Your task to perform on an android device: Open ESPN.com Image 0: 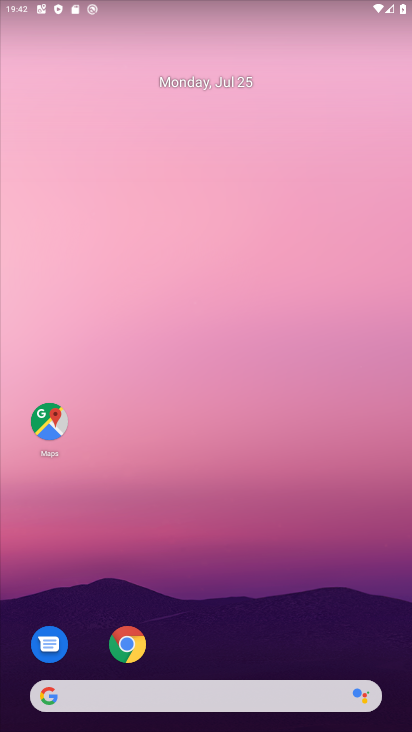
Step 0: press home button
Your task to perform on an android device: Open ESPN.com Image 1: 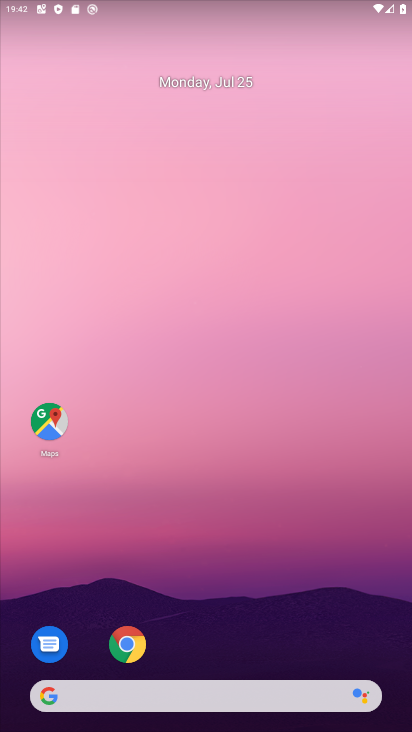
Step 1: click (130, 642)
Your task to perform on an android device: Open ESPN.com Image 2: 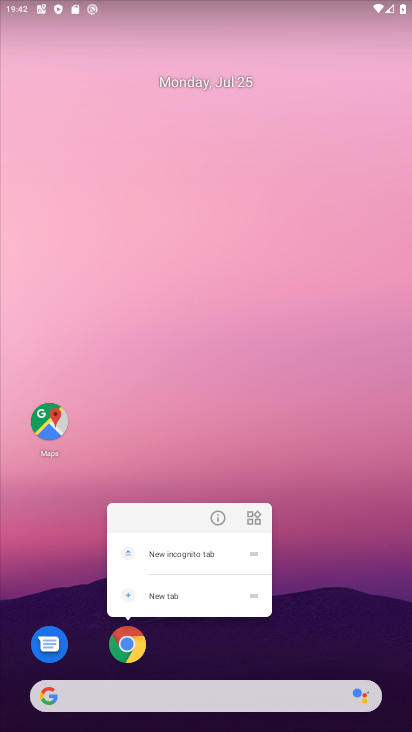
Step 2: click (116, 649)
Your task to perform on an android device: Open ESPN.com Image 3: 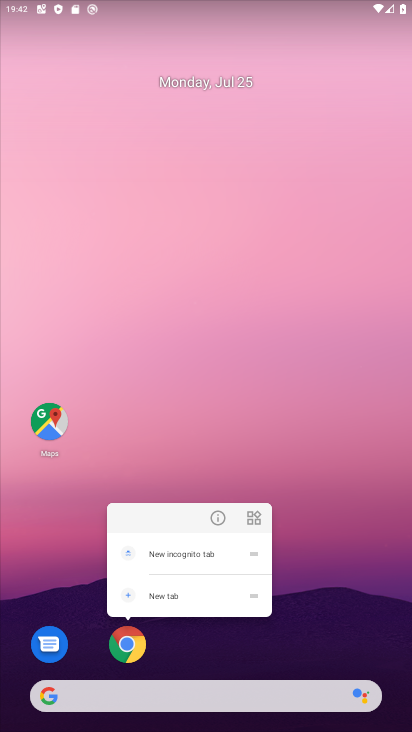
Step 3: click (301, 648)
Your task to perform on an android device: Open ESPN.com Image 4: 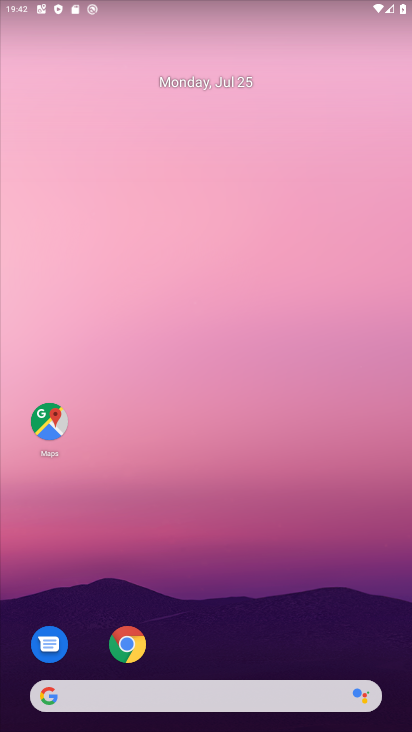
Step 4: drag from (356, 641) to (360, 67)
Your task to perform on an android device: Open ESPN.com Image 5: 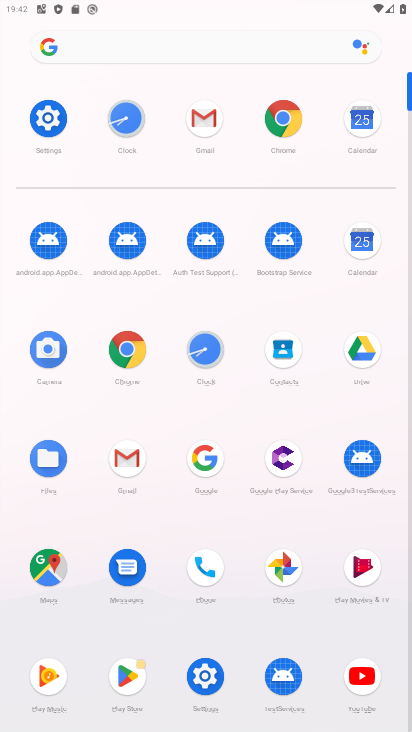
Step 5: click (278, 111)
Your task to perform on an android device: Open ESPN.com Image 6: 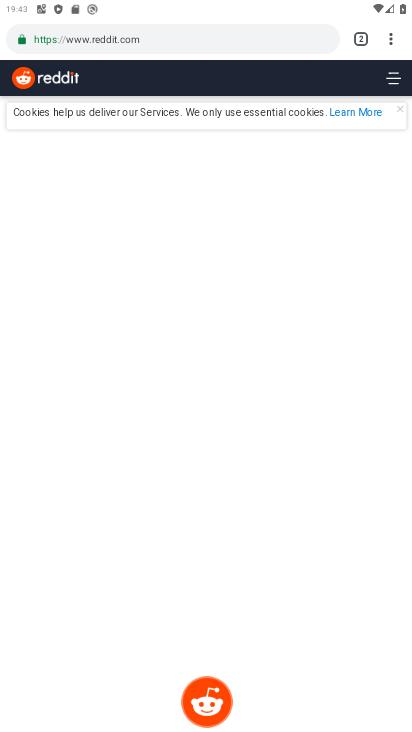
Step 6: click (358, 38)
Your task to perform on an android device: Open ESPN.com Image 7: 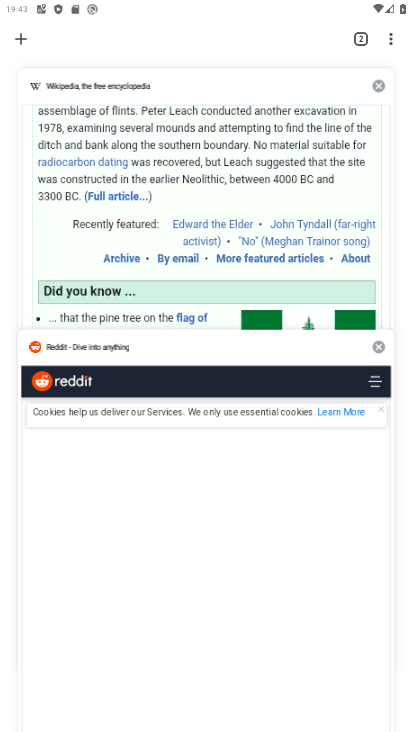
Step 7: click (20, 38)
Your task to perform on an android device: Open ESPN.com Image 8: 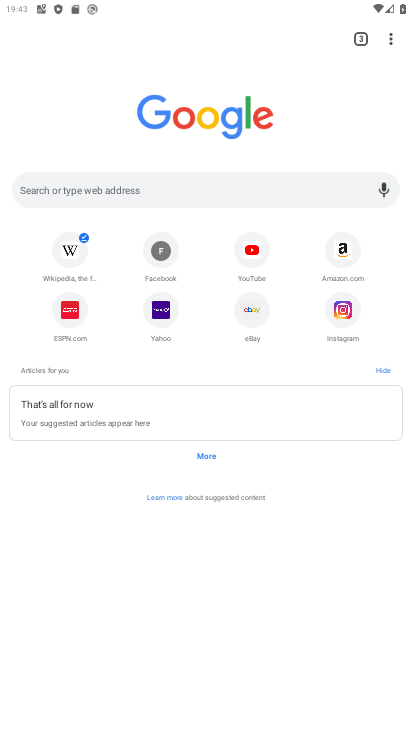
Step 8: click (66, 308)
Your task to perform on an android device: Open ESPN.com Image 9: 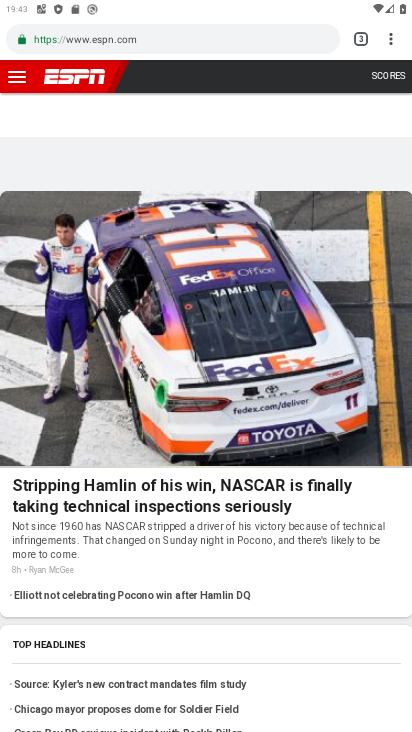
Step 9: task complete